Your task to perform on an android device: open app "Airtel Thanks" Image 0: 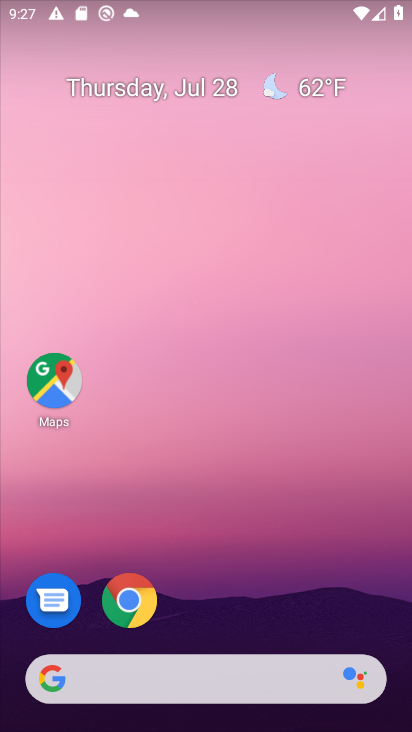
Step 0: drag from (252, 611) to (245, 45)
Your task to perform on an android device: open app "Airtel Thanks" Image 1: 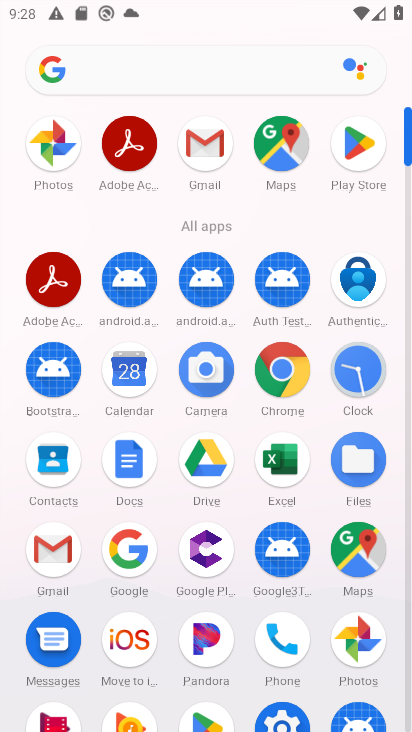
Step 1: drag from (328, 564) to (326, 447)
Your task to perform on an android device: open app "Airtel Thanks" Image 2: 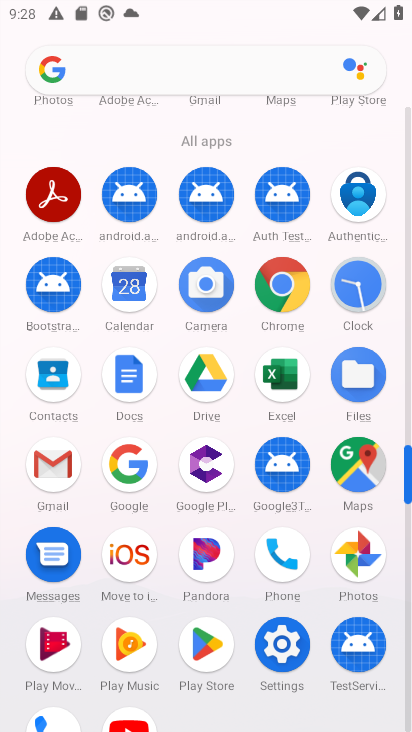
Step 2: drag from (319, 542) to (313, 437)
Your task to perform on an android device: open app "Airtel Thanks" Image 3: 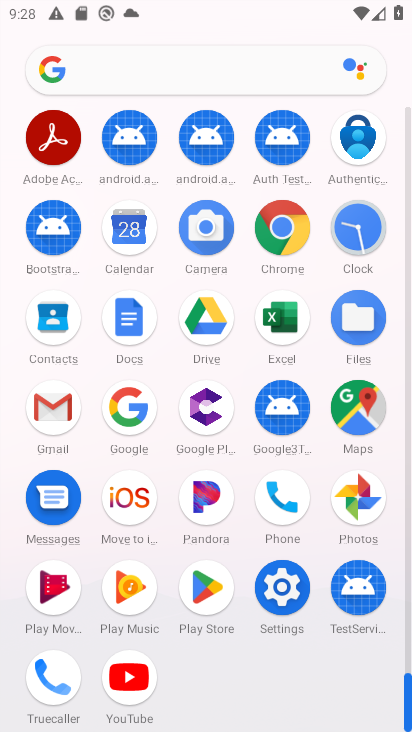
Step 3: click (219, 594)
Your task to perform on an android device: open app "Airtel Thanks" Image 4: 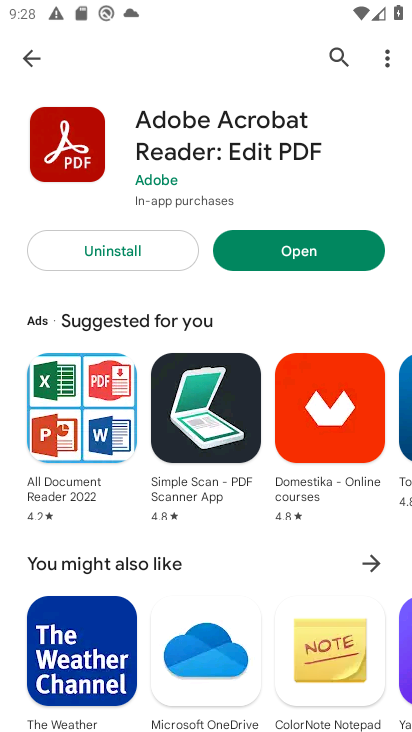
Step 4: click (334, 55)
Your task to perform on an android device: open app "Airtel Thanks" Image 5: 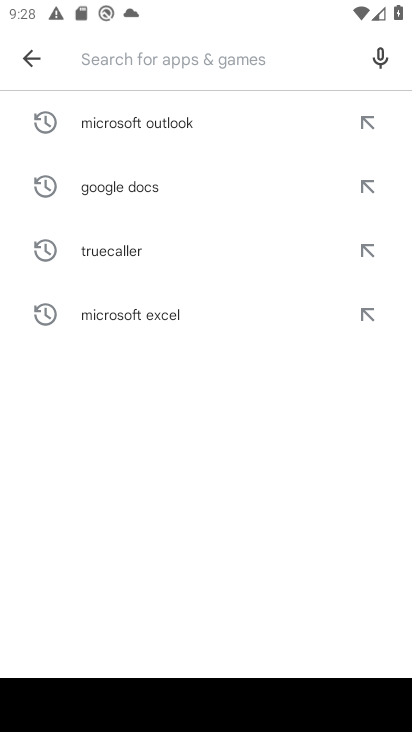
Step 5: type "Airtel Thanks"
Your task to perform on an android device: open app "Airtel Thanks" Image 6: 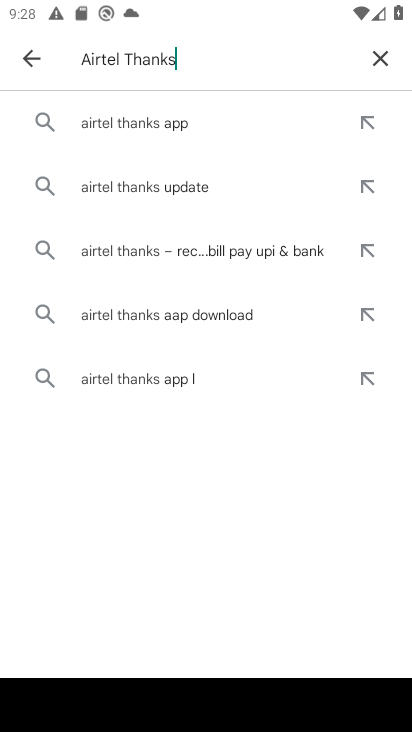
Step 6: click (113, 130)
Your task to perform on an android device: open app "Airtel Thanks" Image 7: 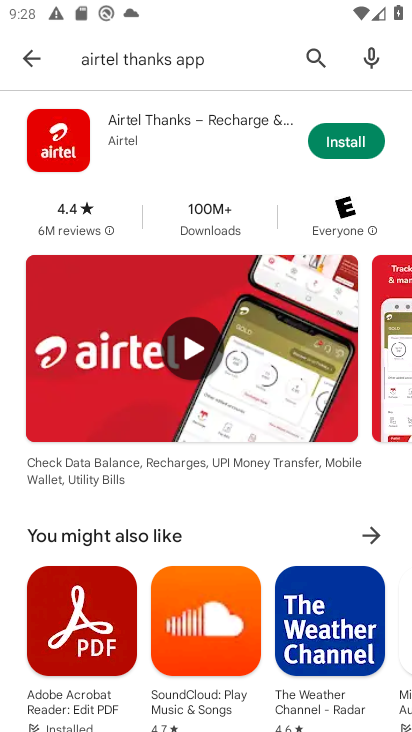
Step 7: task complete